Your task to perform on an android device: Turn on the flashlight Image 0: 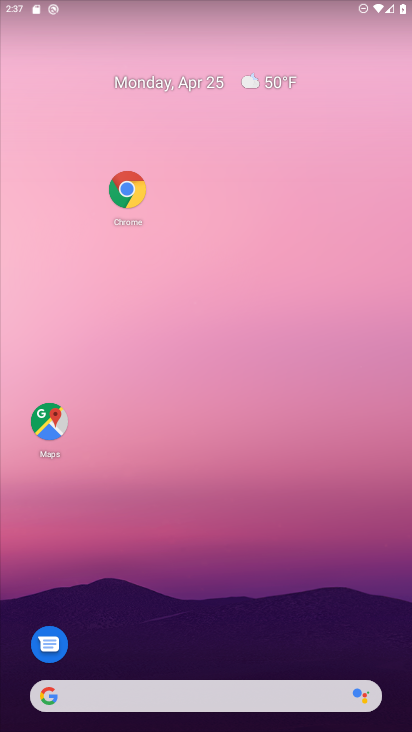
Step 0: drag from (174, 598) to (183, 312)
Your task to perform on an android device: Turn on the flashlight Image 1: 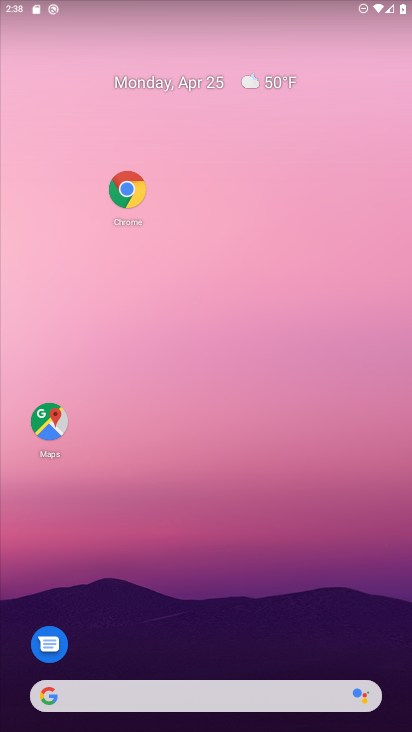
Step 1: drag from (167, 653) to (153, 251)
Your task to perform on an android device: Turn on the flashlight Image 2: 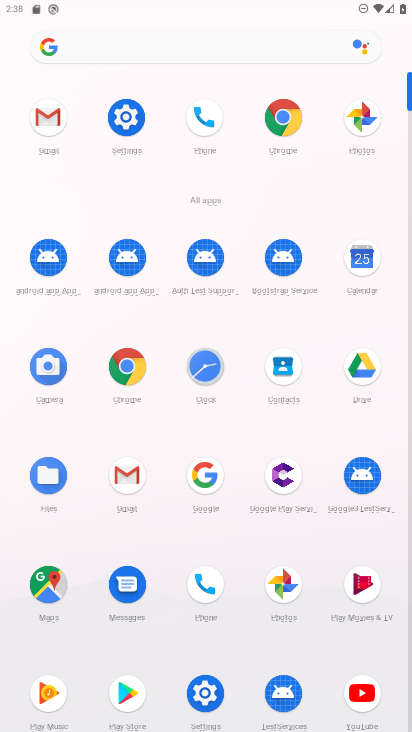
Step 2: click (118, 136)
Your task to perform on an android device: Turn on the flashlight Image 3: 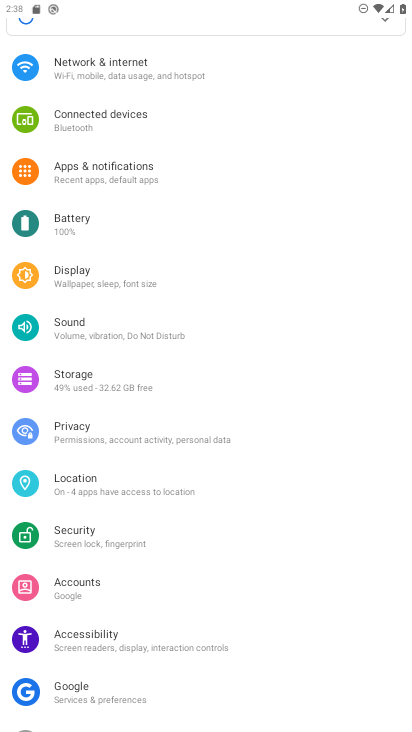
Step 3: click (118, 280)
Your task to perform on an android device: Turn on the flashlight Image 4: 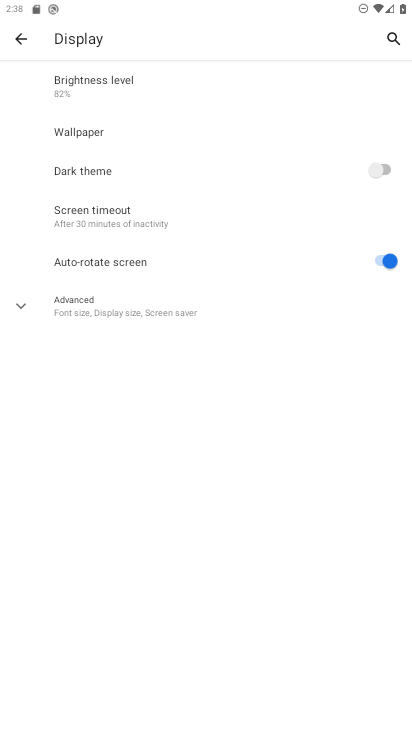
Step 4: task complete